Your task to perform on an android device: View the shopping cart on walmart.com. Image 0: 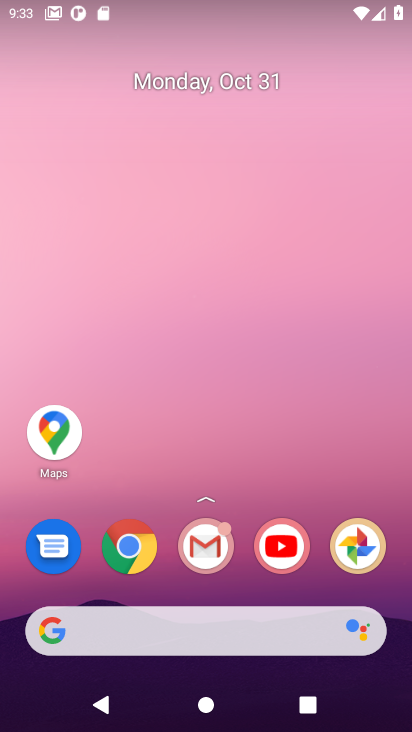
Step 0: drag from (142, 630) to (328, 327)
Your task to perform on an android device: View the shopping cart on walmart.com. Image 1: 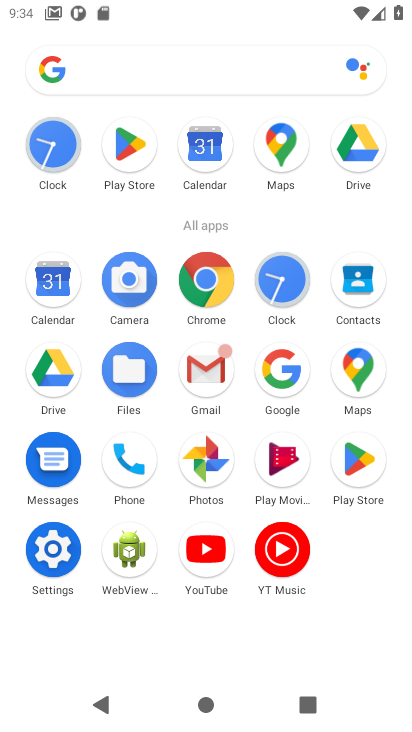
Step 1: click (214, 294)
Your task to perform on an android device: View the shopping cart on walmart.com. Image 2: 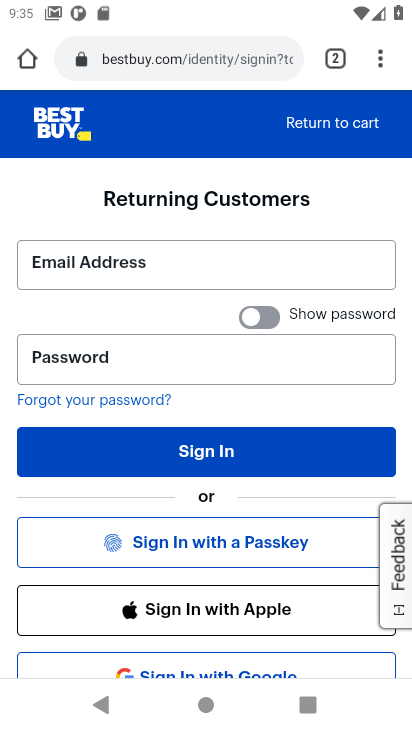
Step 2: click (159, 55)
Your task to perform on an android device: View the shopping cart on walmart.com. Image 3: 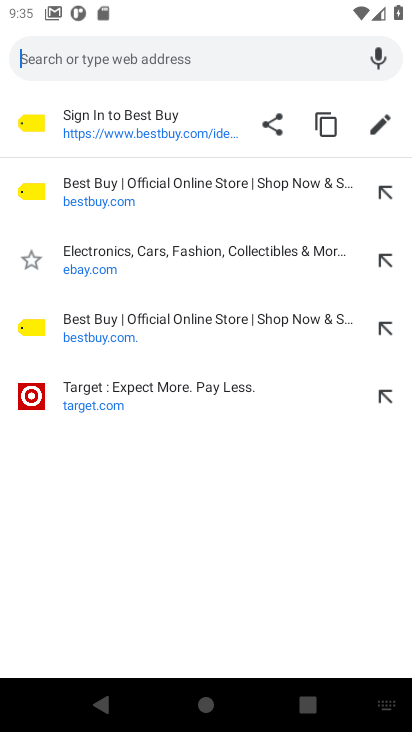
Step 3: type "walmart.com."
Your task to perform on an android device: View the shopping cart on walmart.com. Image 4: 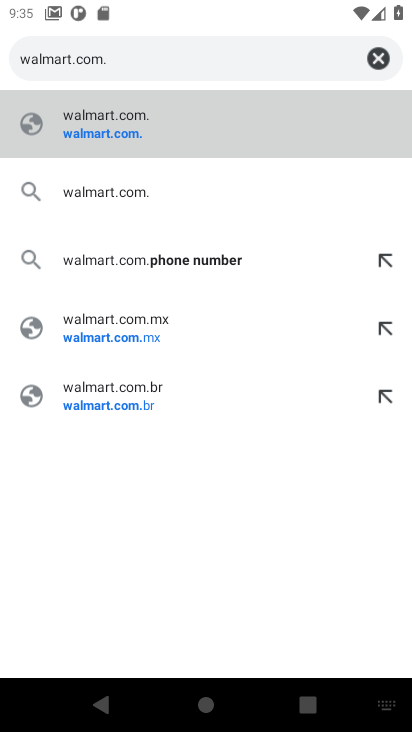
Step 4: press enter
Your task to perform on an android device: View the shopping cart on walmart.com. Image 5: 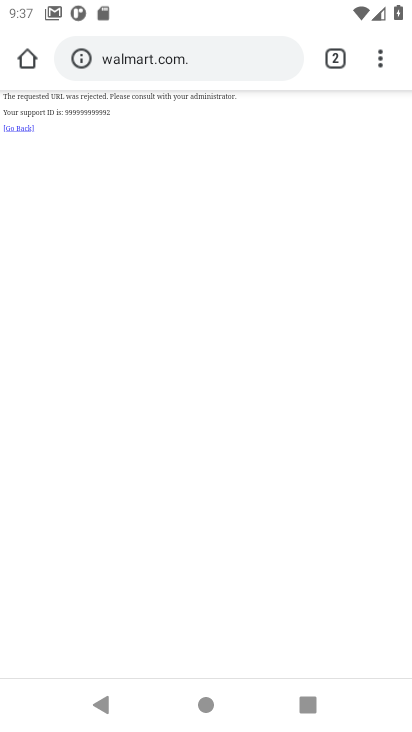
Step 5: click (197, 53)
Your task to perform on an android device: View the shopping cart on walmart.com. Image 6: 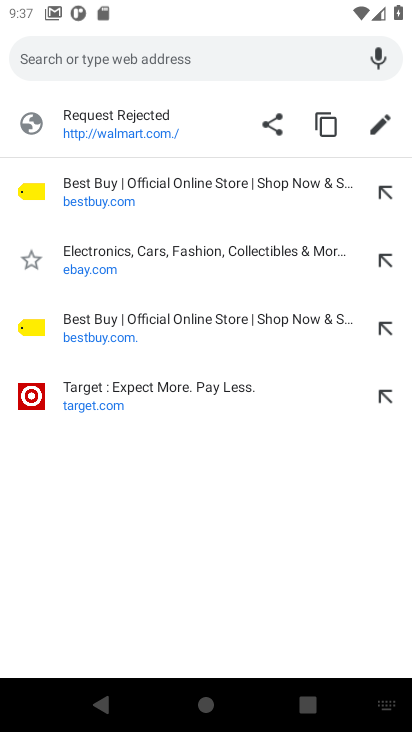
Step 6: type "walmart.com."
Your task to perform on an android device: View the shopping cart on walmart.com. Image 7: 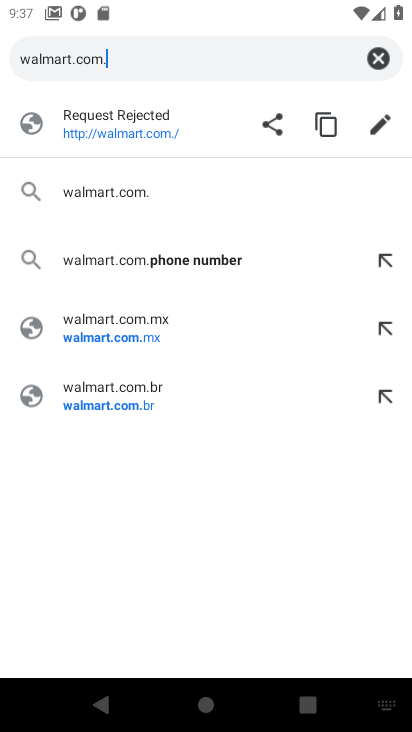
Step 7: press enter
Your task to perform on an android device: View the shopping cart on walmart.com. Image 8: 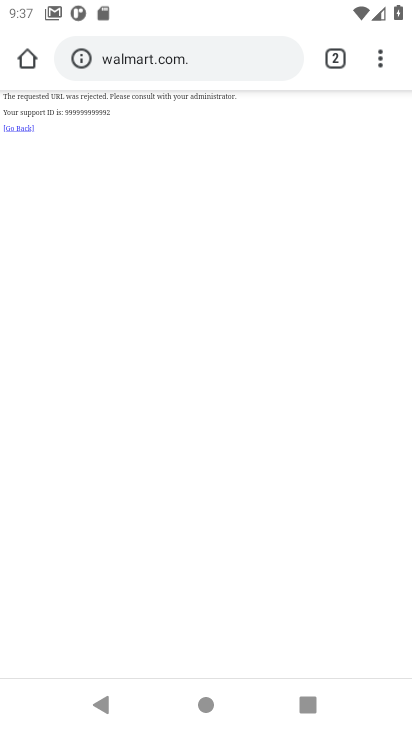
Step 8: task complete